Your task to perform on an android device: turn on translation in the chrome app Image 0: 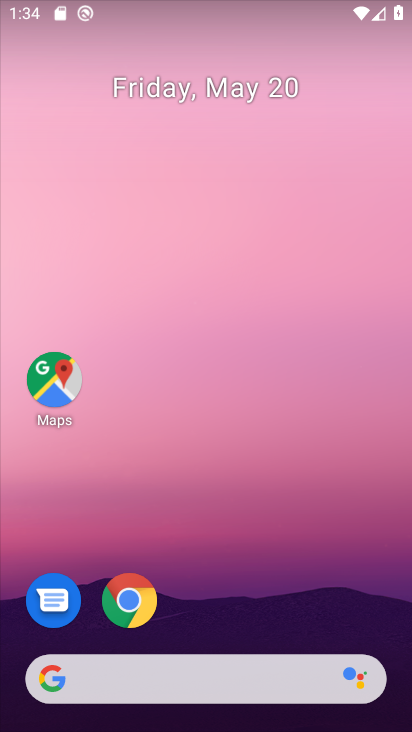
Step 0: click (121, 583)
Your task to perform on an android device: turn on translation in the chrome app Image 1: 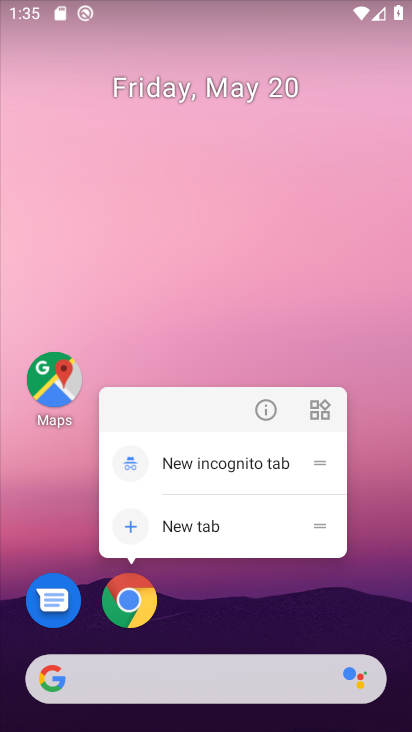
Step 1: click (148, 584)
Your task to perform on an android device: turn on translation in the chrome app Image 2: 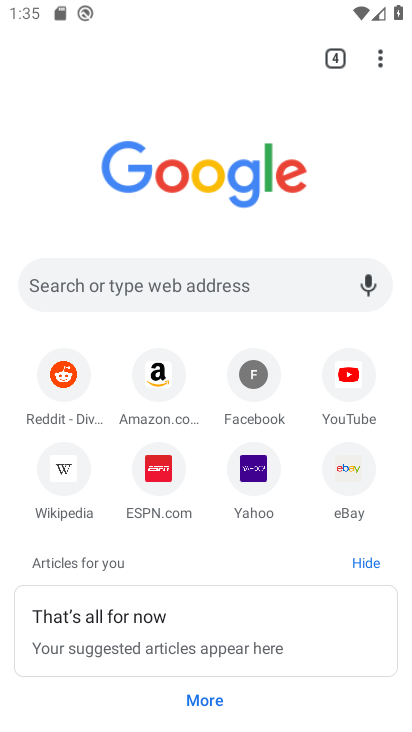
Step 2: click (383, 56)
Your task to perform on an android device: turn on translation in the chrome app Image 3: 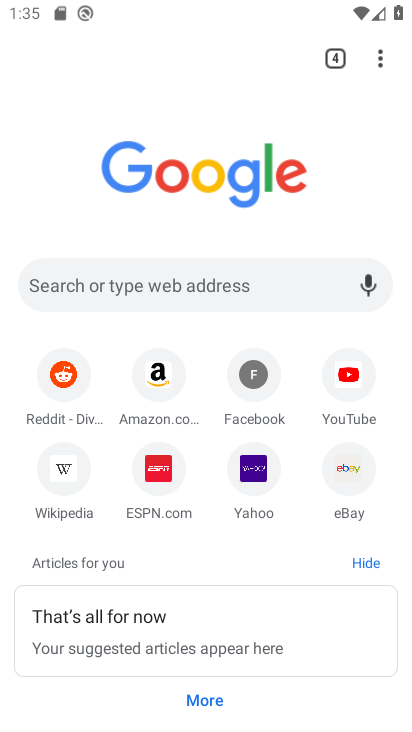
Step 3: click (388, 55)
Your task to perform on an android device: turn on translation in the chrome app Image 4: 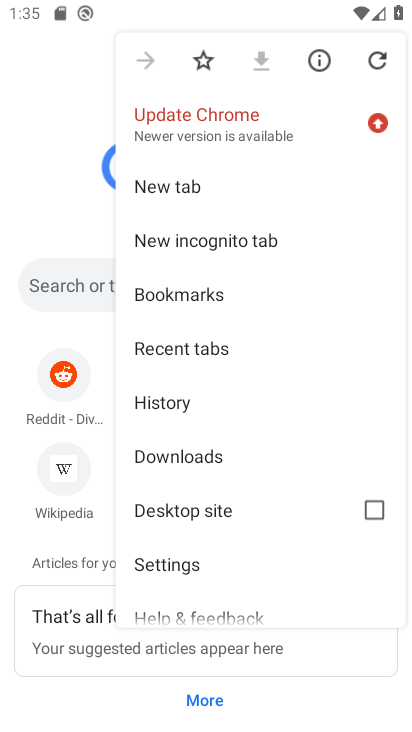
Step 4: click (236, 550)
Your task to perform on an android device: turn on translation in the chrome app Image 5: 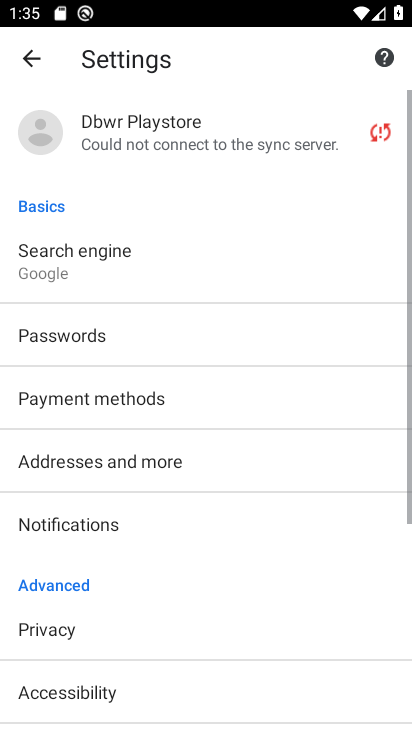
Step 5: drag from (250, 578) to (222, 115)
Your task to perform on an android device: turn on translation in the chrome app Image 6: 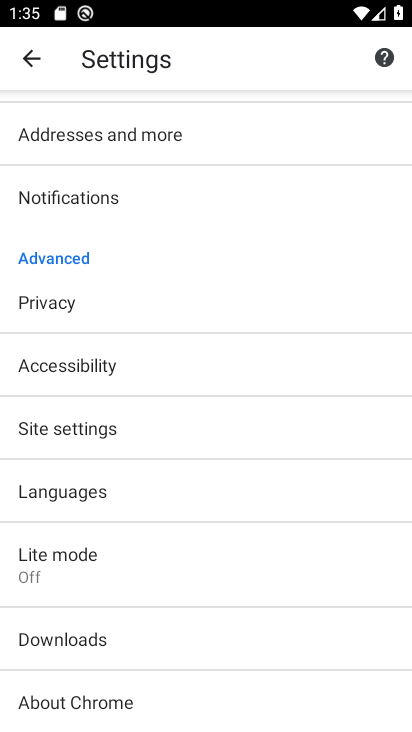
Step 6: click (148, 490)
Your task to perform on an android device: turn on translation in the chrome app Image 7: 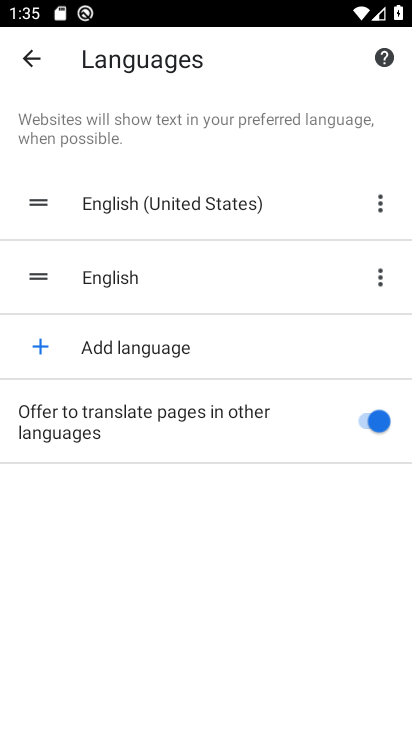
Step 7: click (377, 418)
Your task to perform on an android device: turn on translation in the chrome app Image 8: 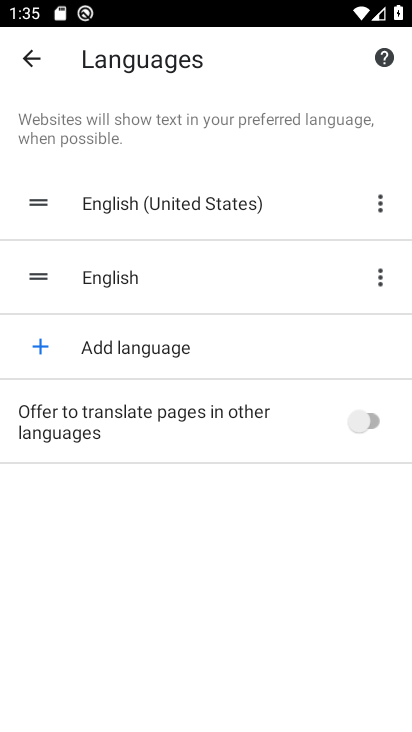
Step 8: click (356, 419)
Your task to perform on an android device: turn on translation in the chrome app Image 9: 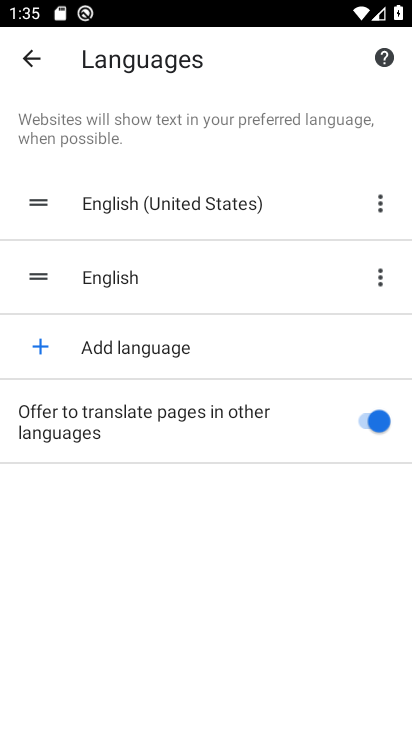
Step 9: task complete